Your task to perform on an android device: Open Google Chrome and click the shortcut for Amazon.com Image 0: 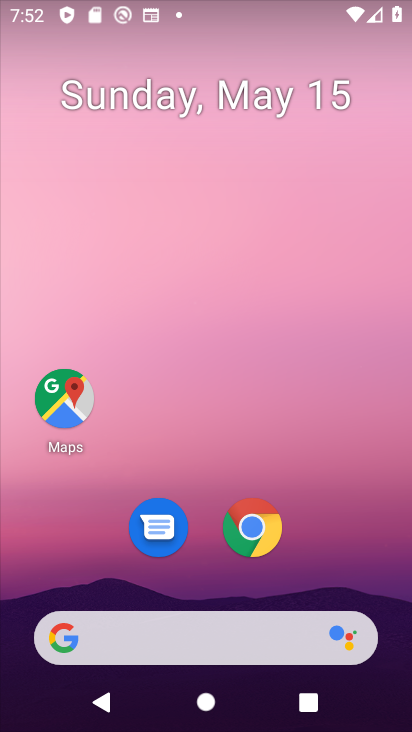
Step 0: click (272, 538)
Your task to perform on an android device: Open Google Chrome and click the shortcut for Amazon.com Image 1: 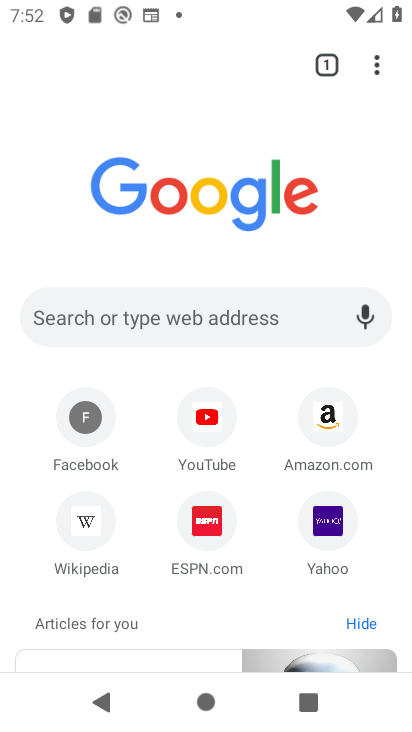
Step 1: click (323, 434)
Your task to perform on an android device: Open Google Chrome and click the shortcut for Amazon.com Image 2: 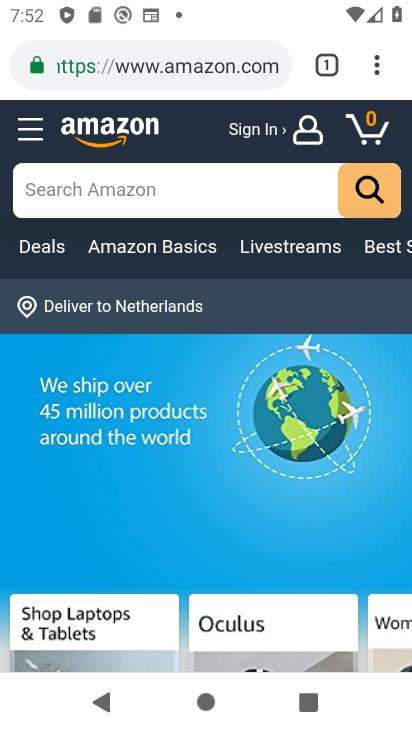
Step 2: task complete